Your task to perform on an android device: What's the weather today? Image 0: 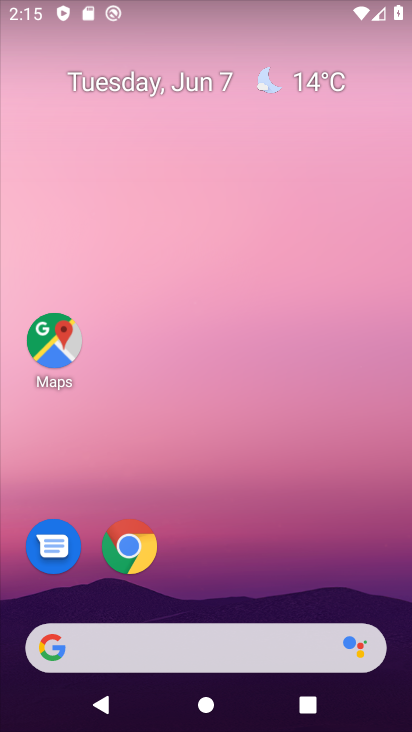
Step 0: click (327, 74)
Your task to perform on an android device: What's the weather today? Image 1: 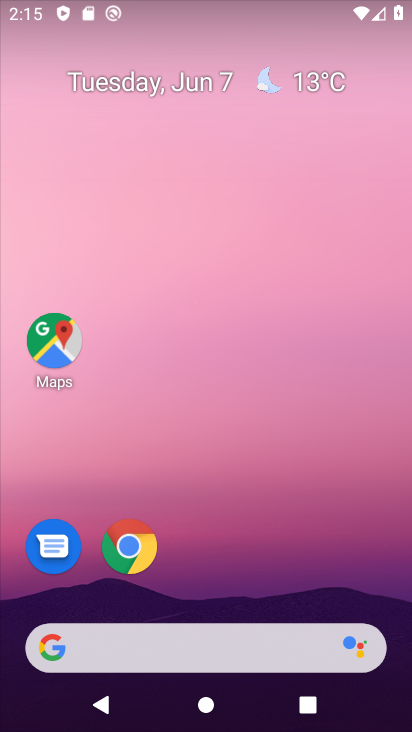
Step 1: click (327, 74)
Your task to perform on an android device: What's the weather today? Image 2: 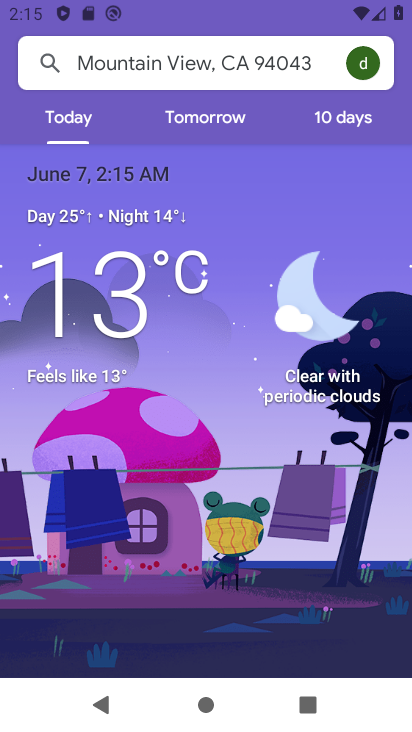
Step 2: task complete